Your task to perform on an android device: turn off location Image 0: 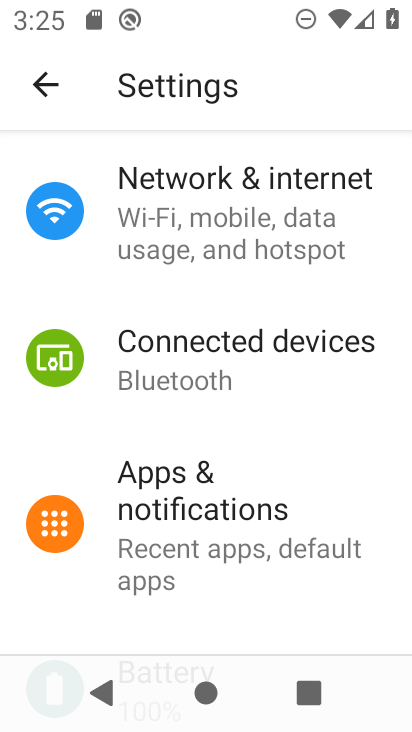
Step 0: drag from (187, 489) to (187, 267)
Your task to perform on an android device: turn off location Image 1: 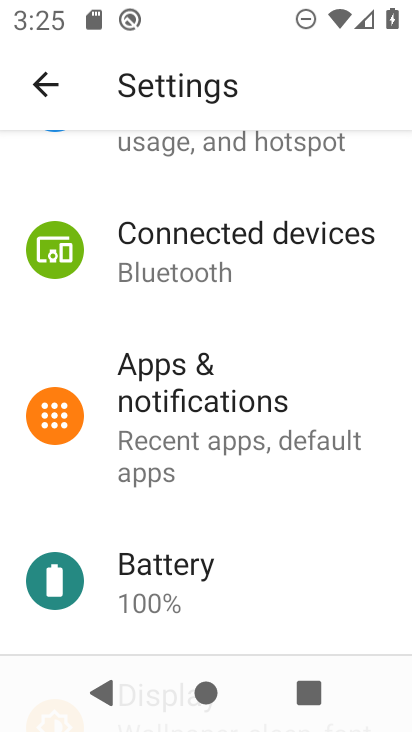
Step 1: drag from (314, 631) to (291, 416)
Your task to perform on an android device: turn off location Image 2: 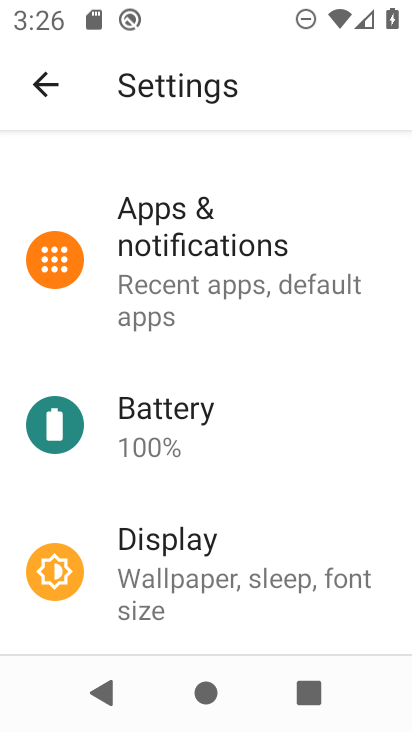
Step 2: drag from (120, 553) to (101, 359)
Your task to perform on an android device: turn off location Image 3: 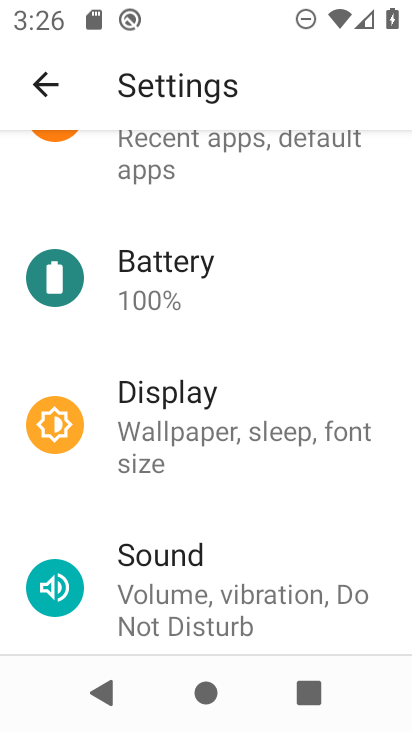
Step 3: drag from (103, 605) to (98, 415)
Your task to perform on an android device: turn off location Image 4: 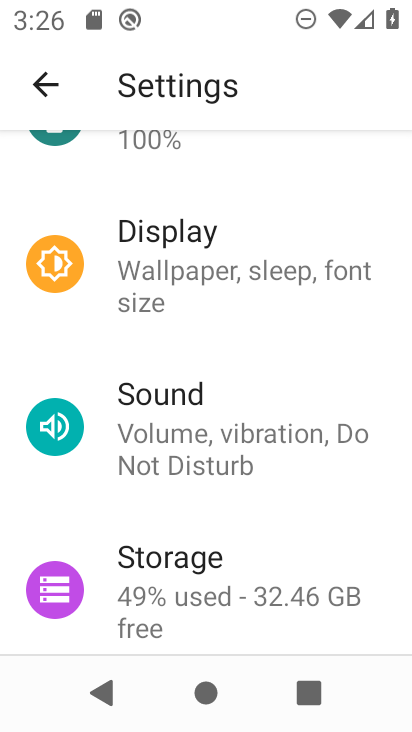
Step 4: drag from (138, 626) to (157, 431)
Your task to perform on an android device: turn off location Image 5: 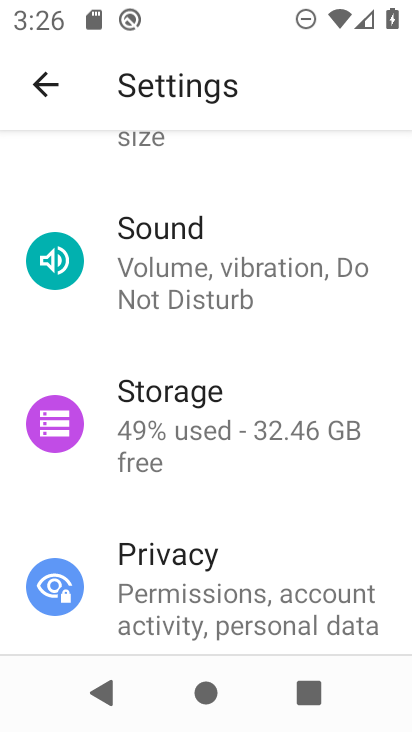
Step 5: drag from (200, 540) to (189, 386)
Your task to perform on an android device: turn off location Image 6: 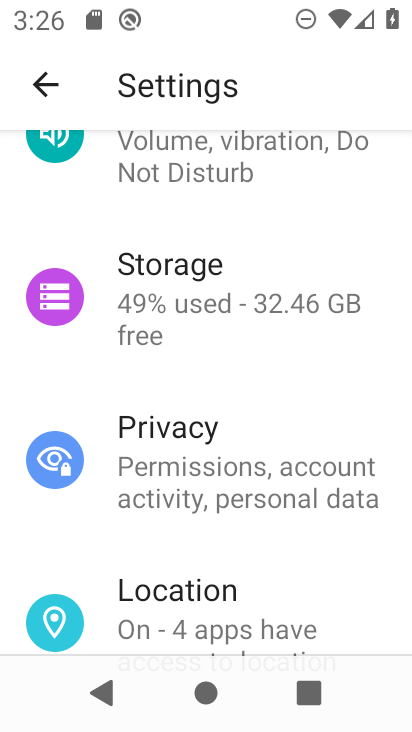
Step 6: click (153, 596)
Your task to perform on an android device: turn off location Image 7: 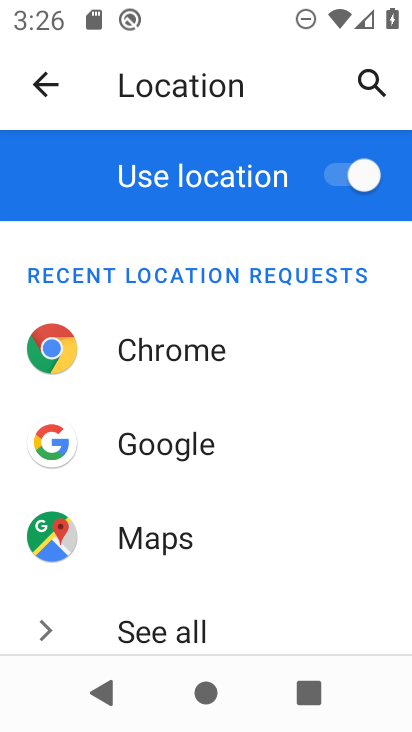
Step 7: click (350, 168)
Your task to perform on an android device: turn off location Image 8: 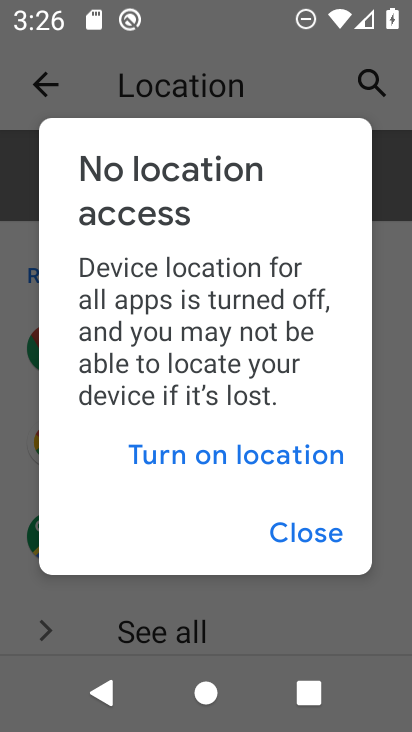
Step 8: task complete